Your task to perform on an android device: turn off picture-in-picture Image 0: 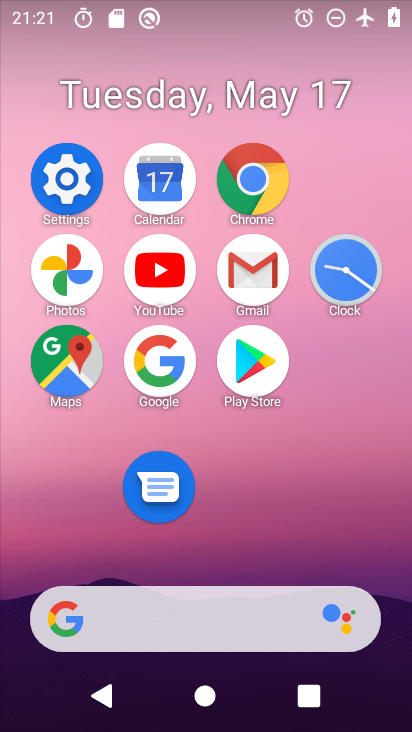
Step 0: click (243, 180)
Your task to perform on an android device: turn off picture-in-picture Image 1: 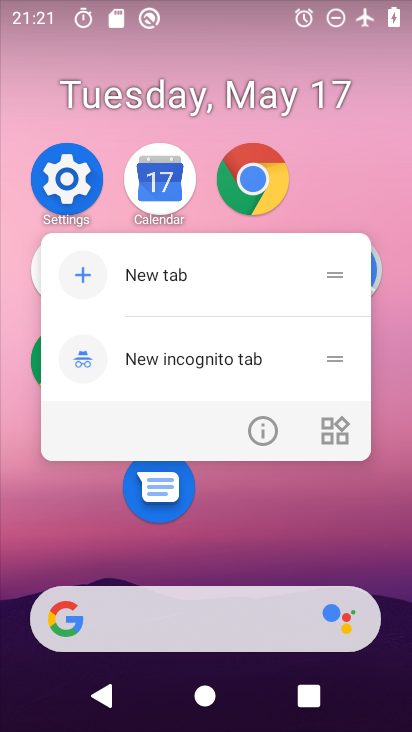
Step 1: click (268, 420)
Your task to perform on an android device: turn off picture-in-picture Image 2: 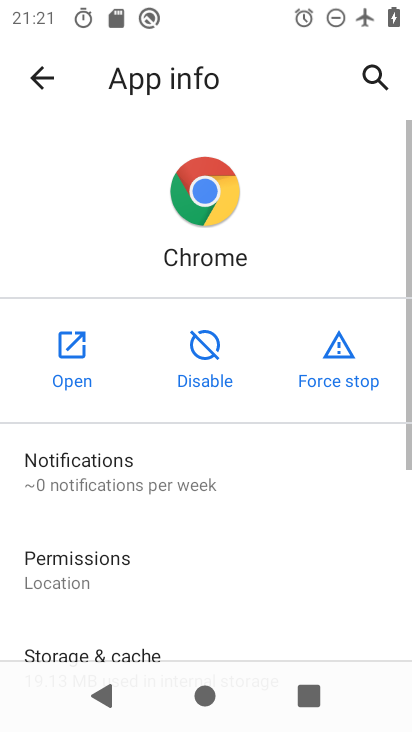
Step 2: drag from (241, 635) to (267, 244)
Your task to perform on an android device: turn off picture-in-picture Image 3: 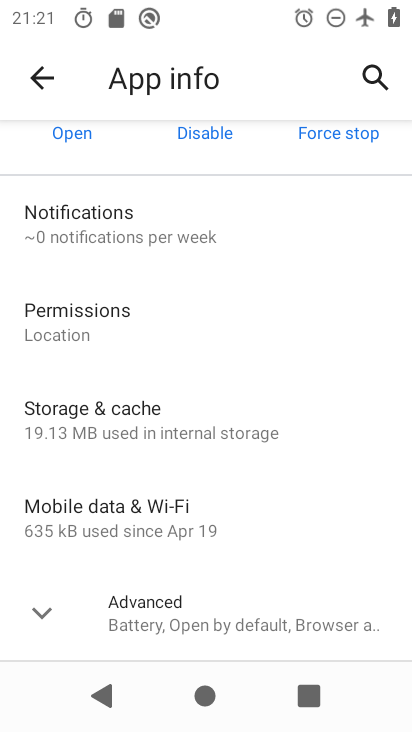
Step 3: click (187, 589)
Your task to perform on an android device: turn off picture-in-picture Image 4: 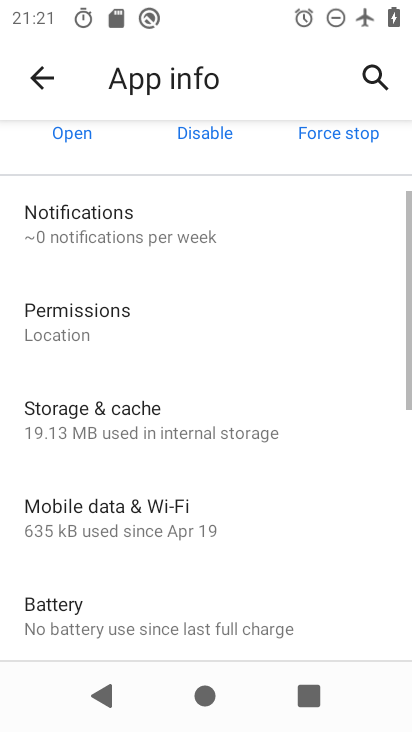
Step 4: drag from (187, 589) to (206, 266)
Your task to perform on an android device: turn off picture-in-picture Image 5: 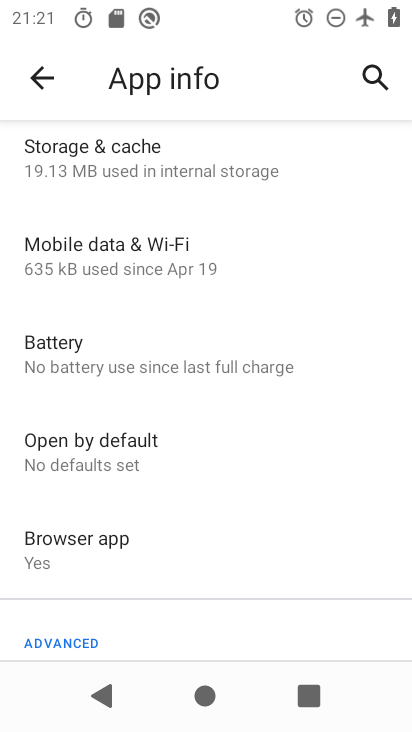
Step 5: drag from (180, 477) to (220, 221)
Your task to perform on an android device: turn off picture-in-picture Image 6: 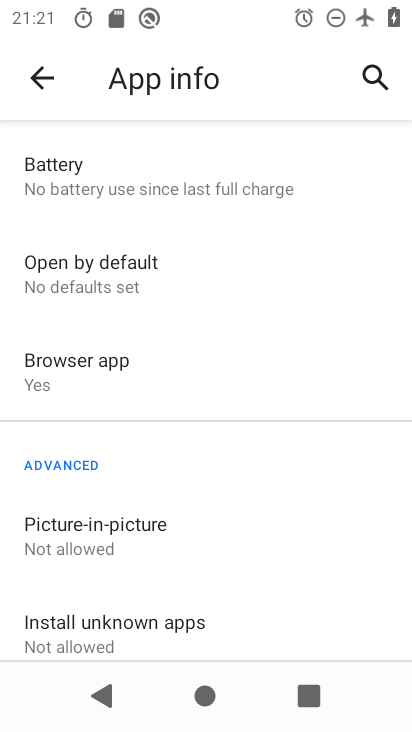
Step 6: click (135, 535)
Your task to perform on an android device: turn off picture-in-picture Image 7: 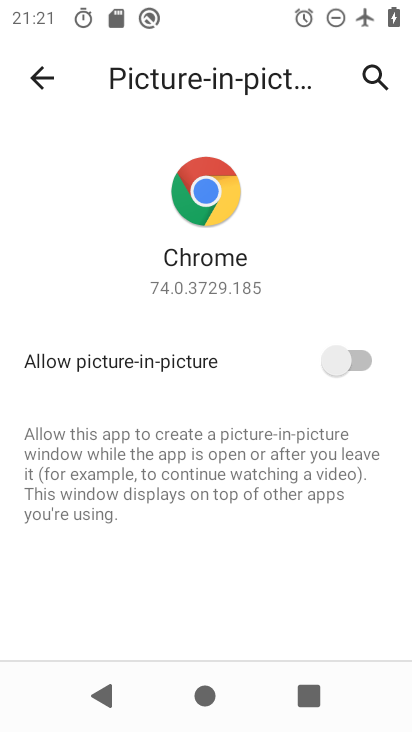
Step 7: task complete